Your task to perform on an android device: Add amazon basics triple a to the cart on bestbuy, then select checkout. Image 0: 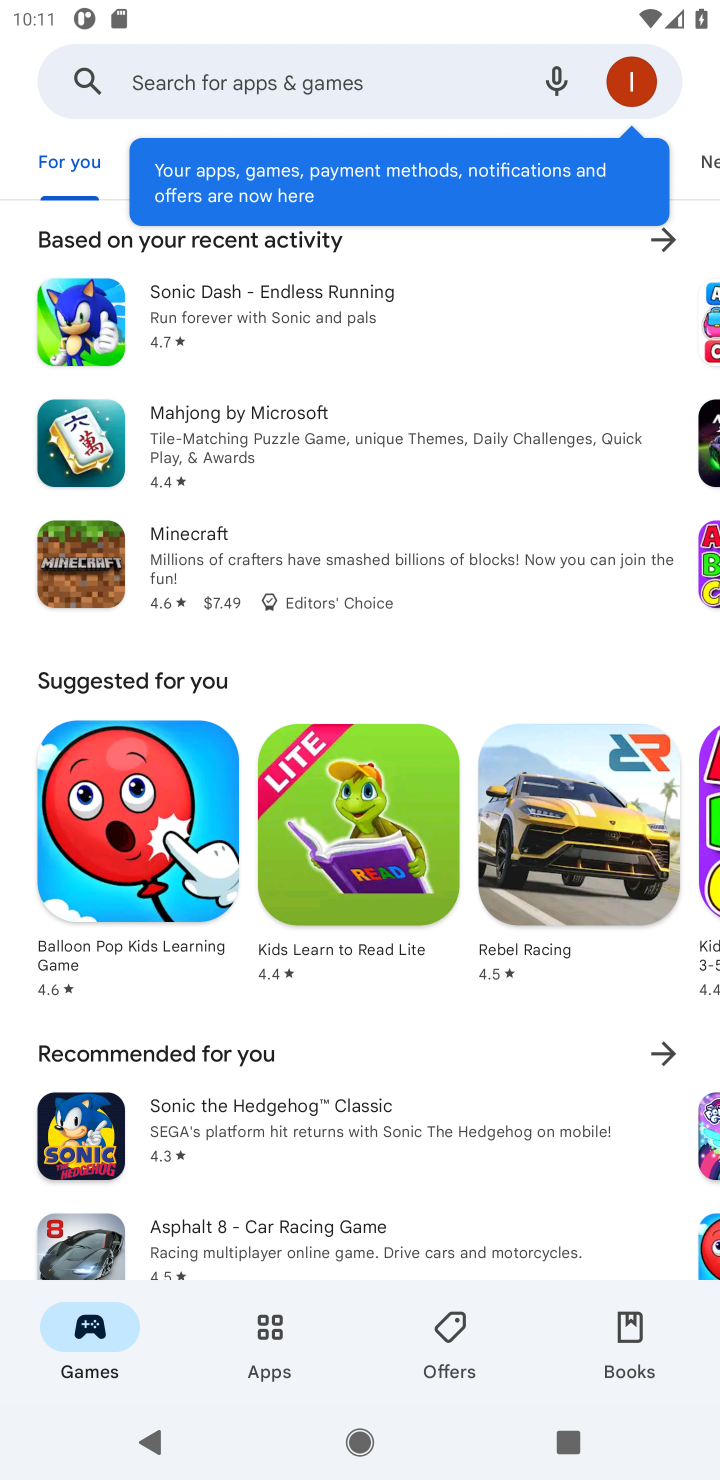
Step 0: press home button
Your task to perform on an android device: Add amazon basics triple a to the cart on bestbuy, then select checkout. Image 1: 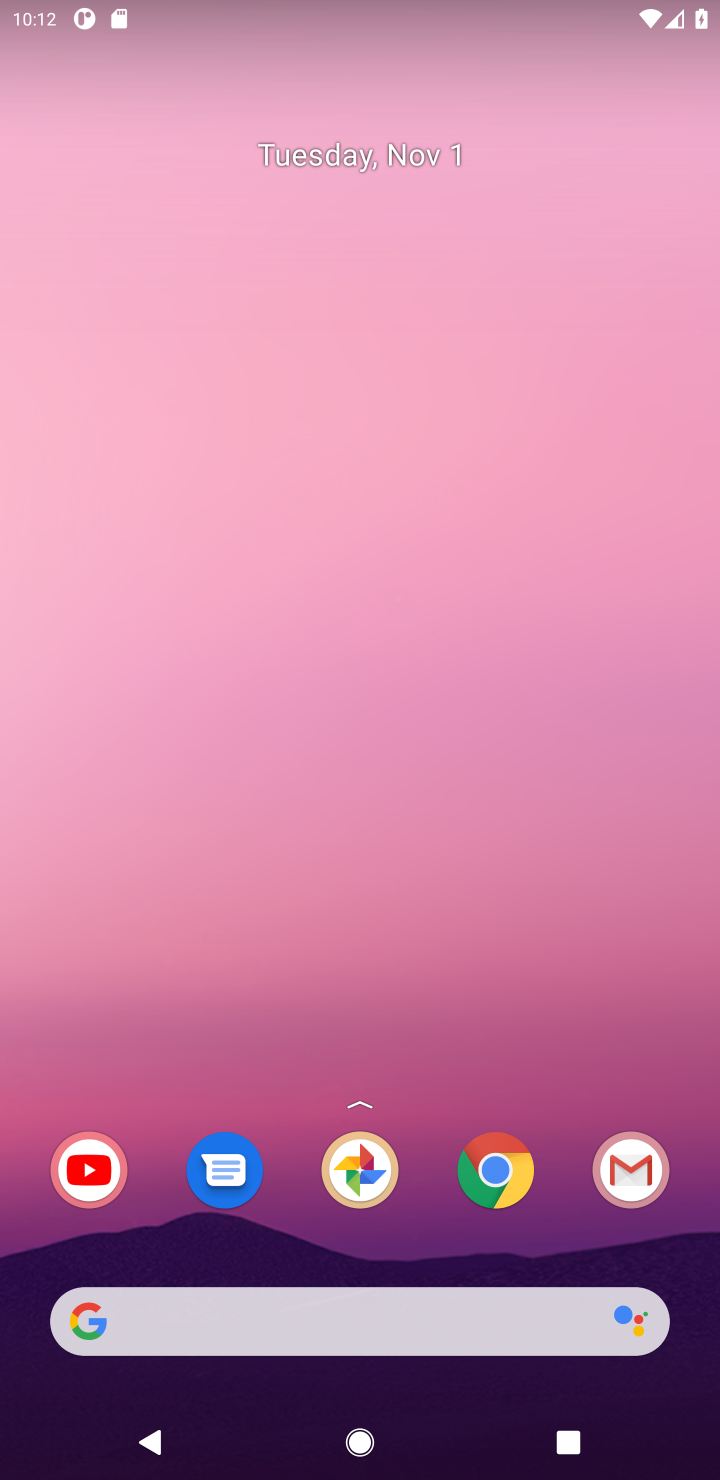
Step 1: click (501, 1174)
Your task to perform on an android device: Add amazon basics triple a to the cart on bestbuy, then select checkout. Image 2: 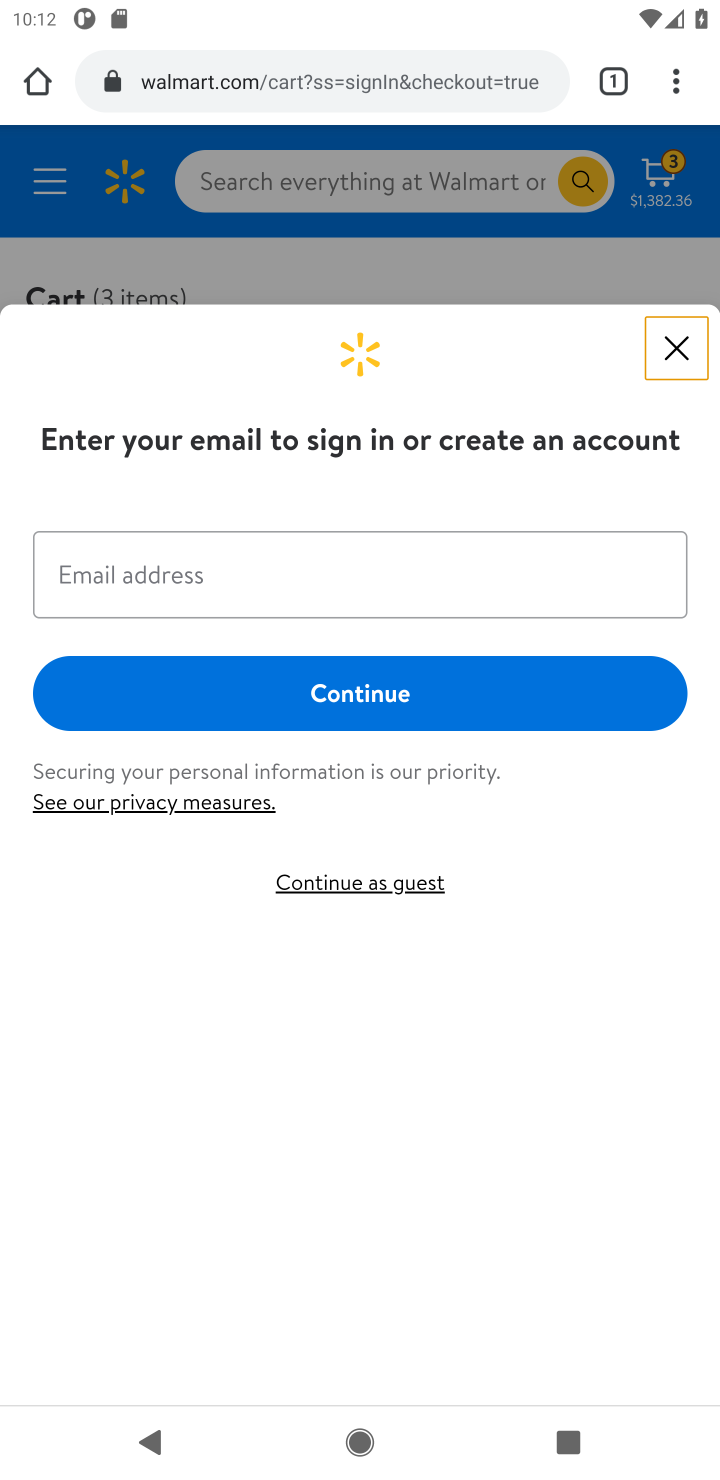
Step 2: click (303, 72)
Your task to perform on an android device: Add amazon basics triple a to the cart on bestbuy, then select checkout. Image 3: 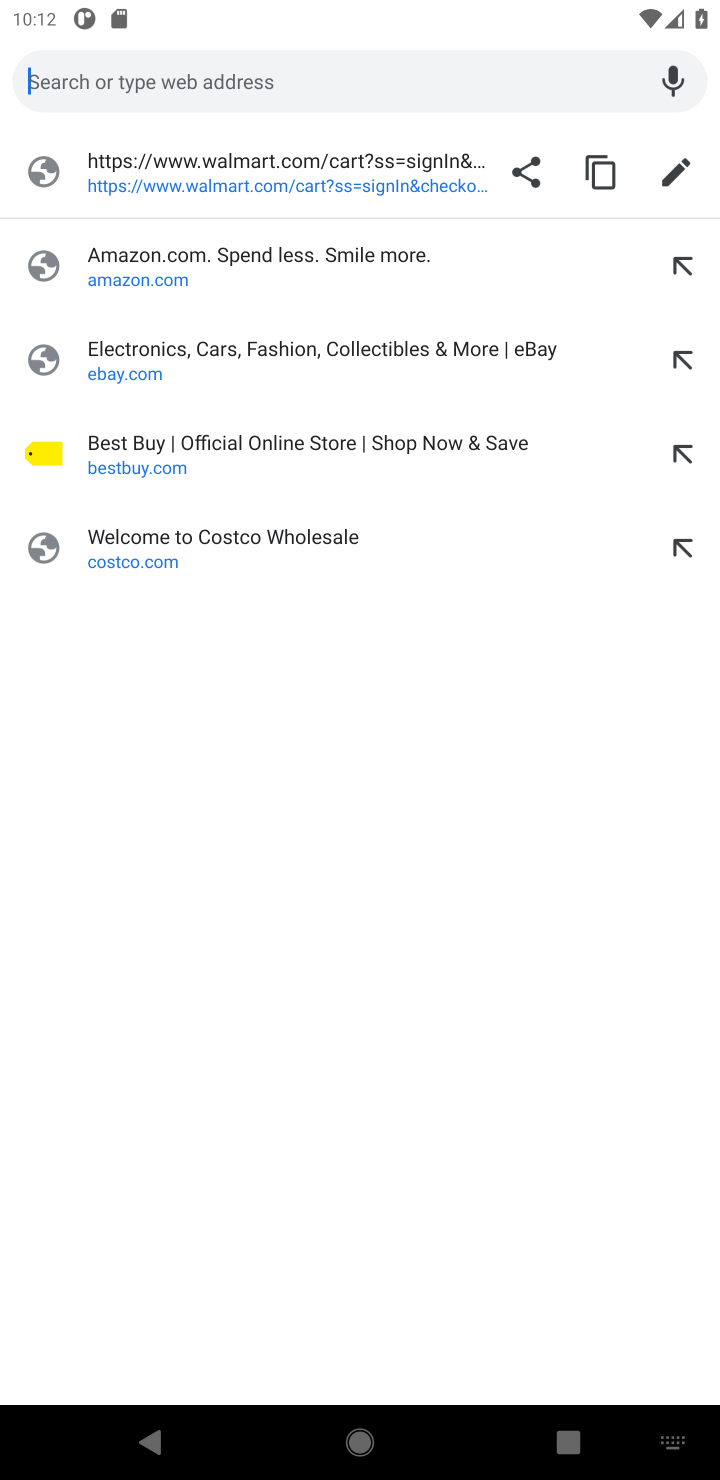
Step 3: type "bestbuy"
Your task to perform on an android device: Add amazon basics triple a to the cart on bestbuy, then select checkout. Image 4: 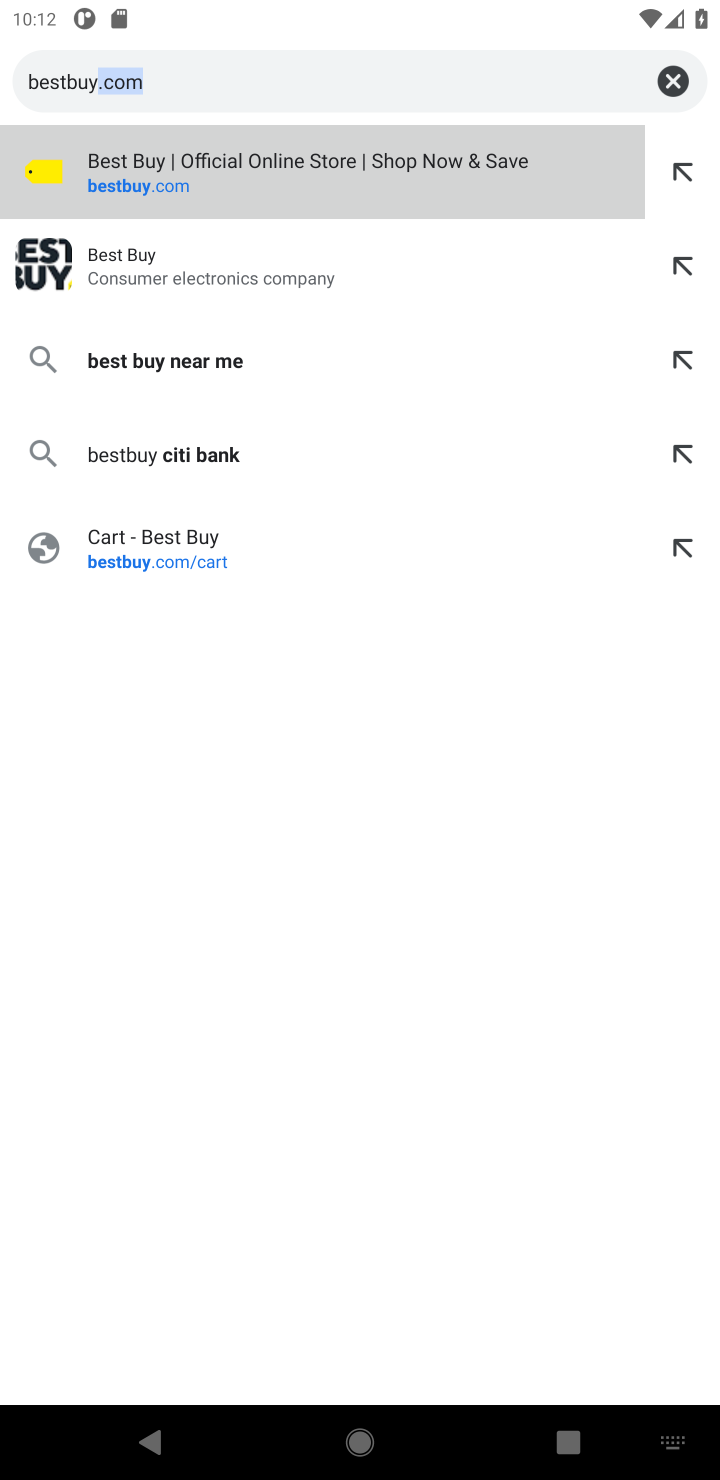
Step 4: type ""
Your task to perform on an android device: Add amazon basics triple a to the cart on bestbuy, then select checkout. Image 5: 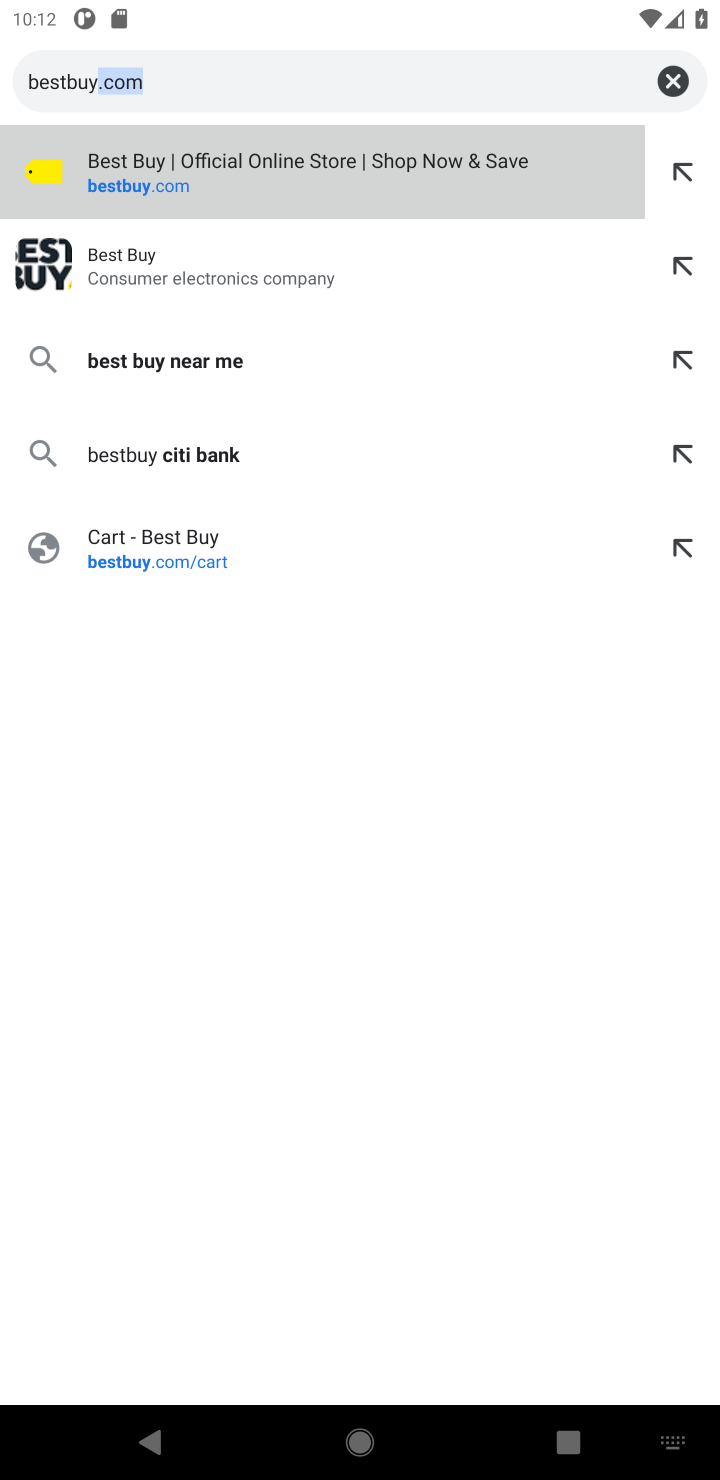
Step 5: press enter
Your task to perform on an android device: Add amazon basics triple a to the cart on bestbuy, then select checkout. Image 6: 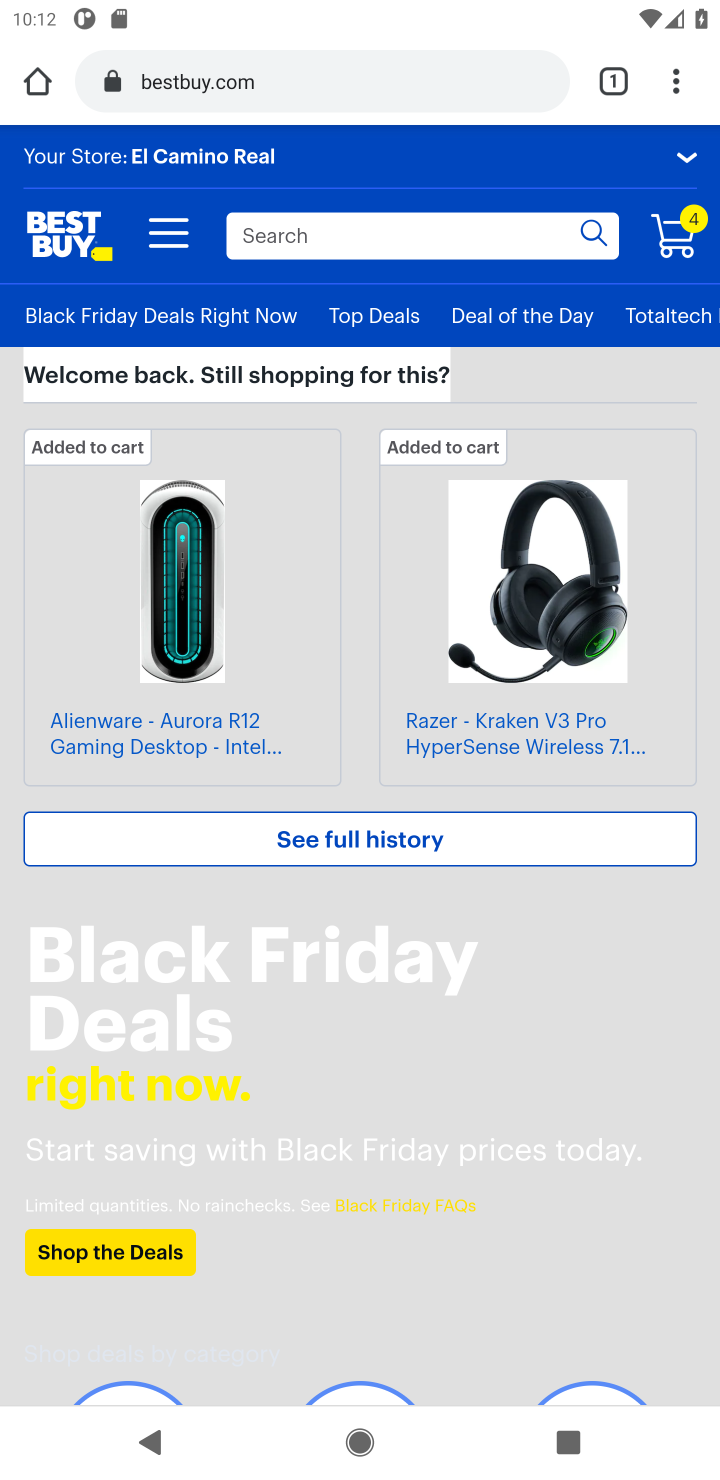
Step 6: click (429, 246)
Your task to perform on an android device: Add amazon basics triple a to the cart on bestbuy, then select checkout. Image 7: 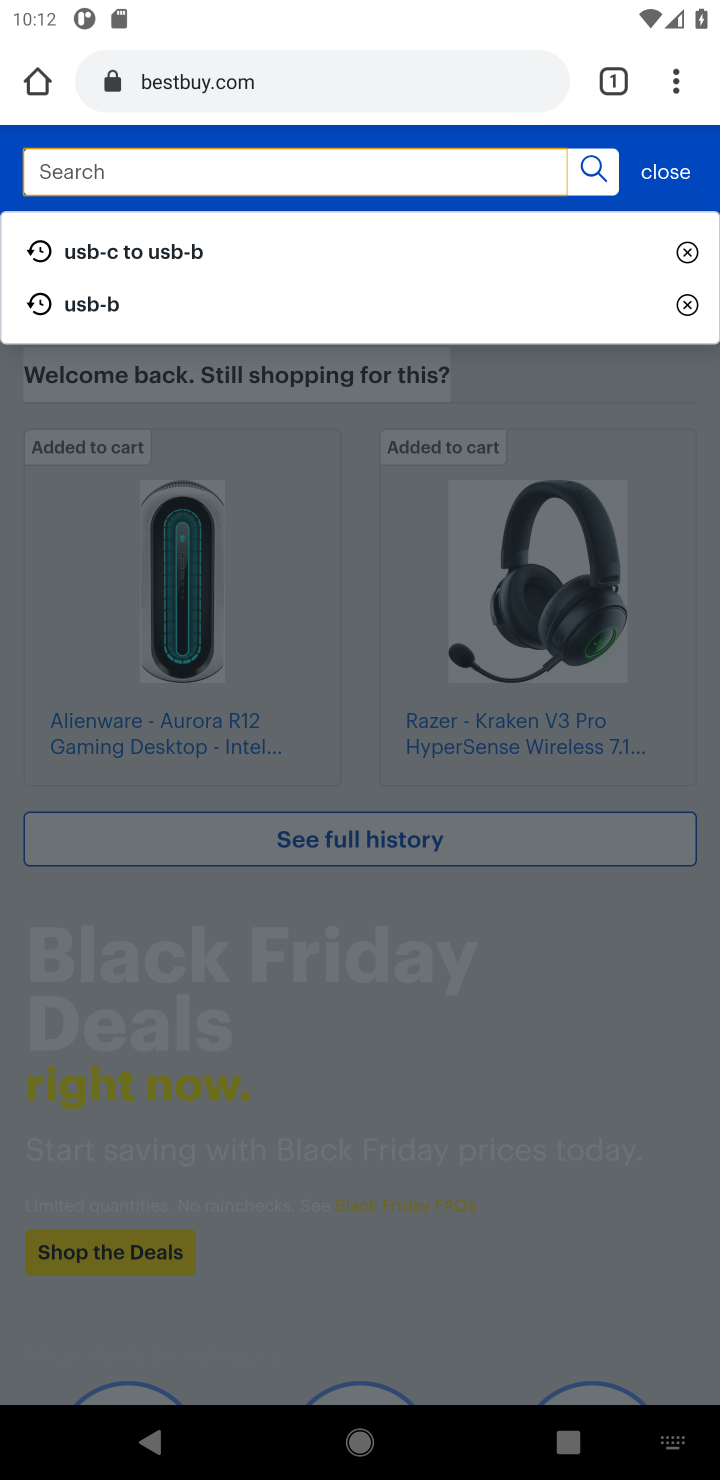
Step 7: type "amazon basics triple a"
Your task to perform on an android device: Add amazon basics triple a to the cart on bestbuy, then select checkout. Image 8: 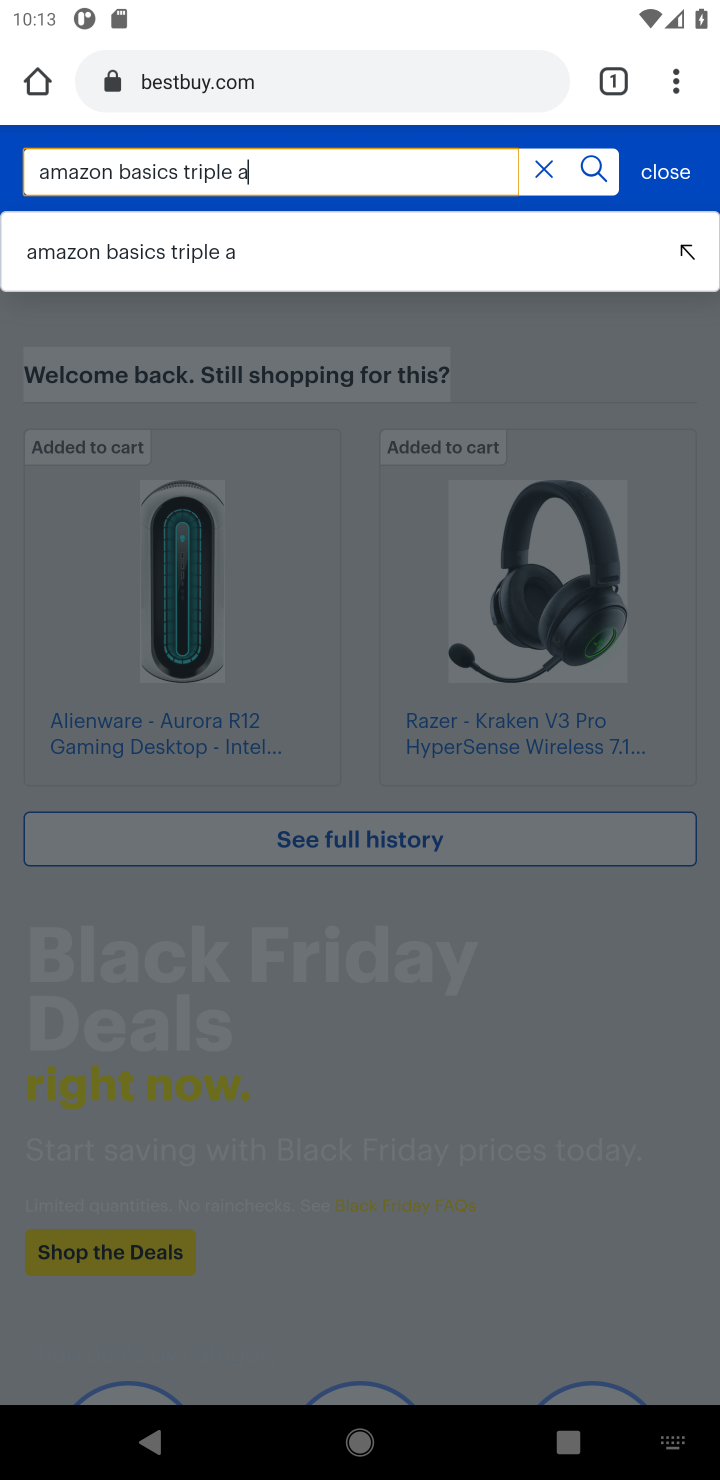
Step 8: press enter
Your task to perform on an android device: Add amazon basics triple a to the cart on bestbuy, then select checkout. Image 9: 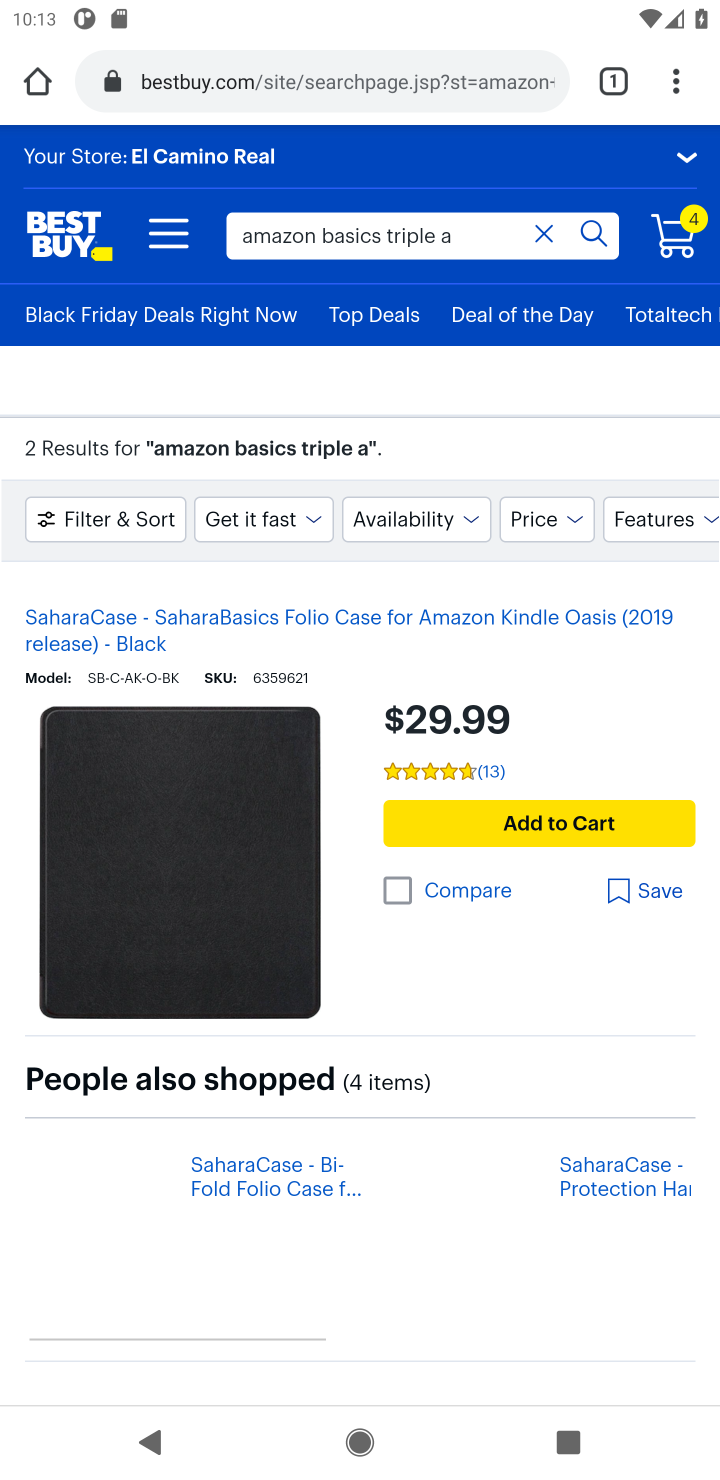
Step 9: task complete